Your task to perform on an android device: toggle location history Image 0: 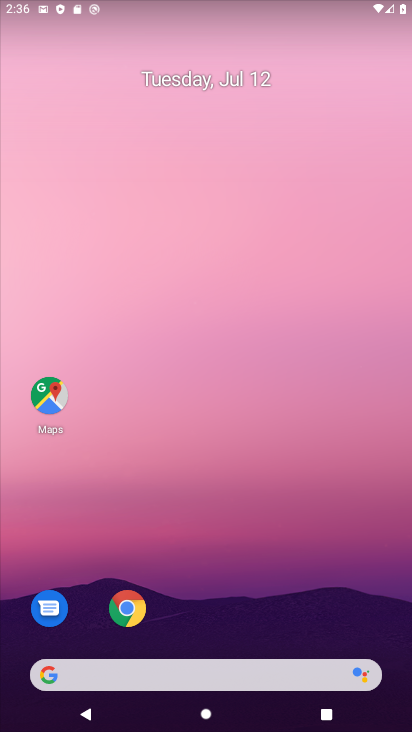
Step 0: drag from (241, 608) to (223, 66)
Your task to perform on an android device: toggle location history Image 1: 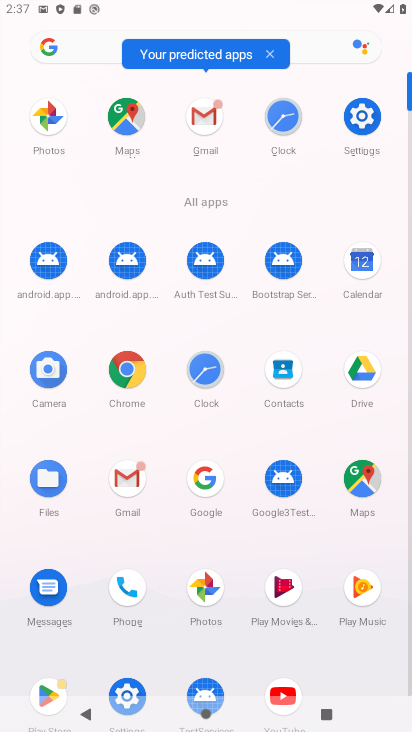
Step 1: click (130, 123)
Your task to perform on an android device: toggle location history Image 2: 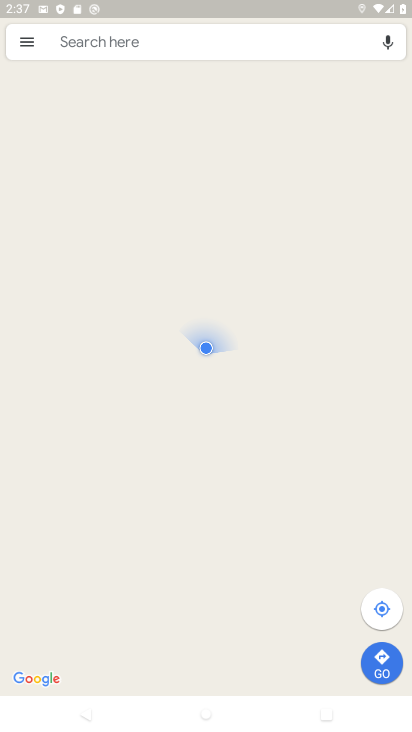
Step 2: click (24, 47)
Your task to perform on an android device: toggle location history Image 3: 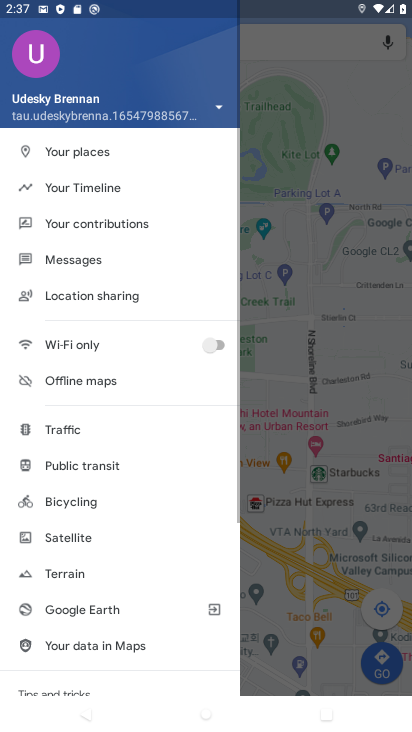
Step 3: click (107, 188)
Your task to perform on an android device: toggle location history Image 4: 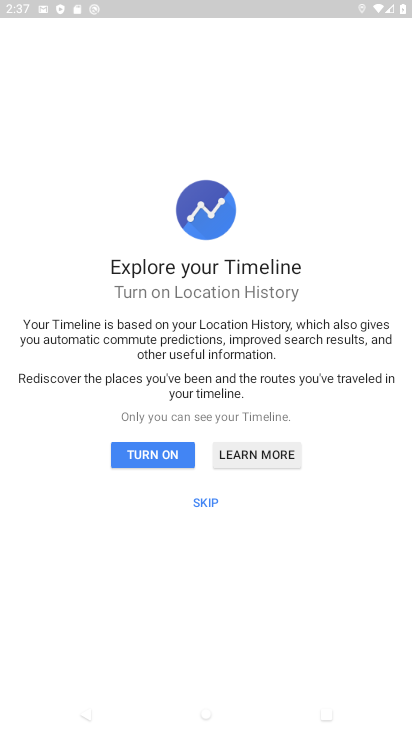
Step 4: click (164, 462)
Your task to perform on an android device: toggle location history Image 5: 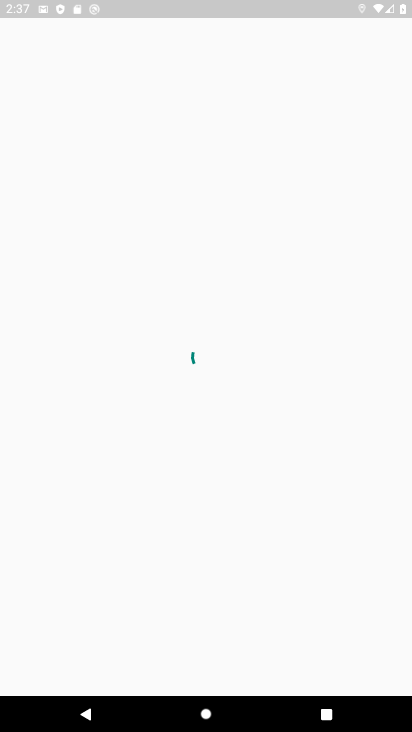
Step 5: task complete